Your task to perform on an android device: Open network settings Image 0: 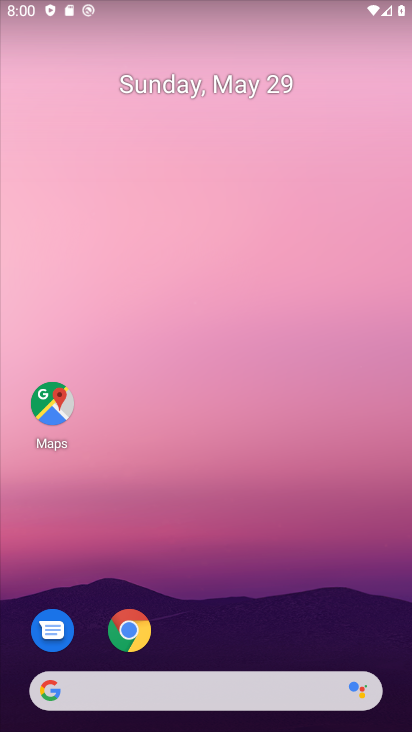
Step 0: drag from (299, 606) to (285, 41)
Your task to perform on an android device: Open network settings Image 1: 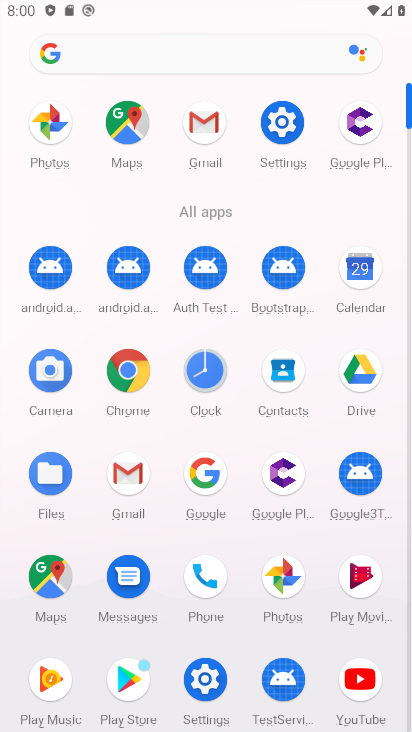
Step 1: click (288, 104)
Your task to perform on an android device: Open network settings Image 2: 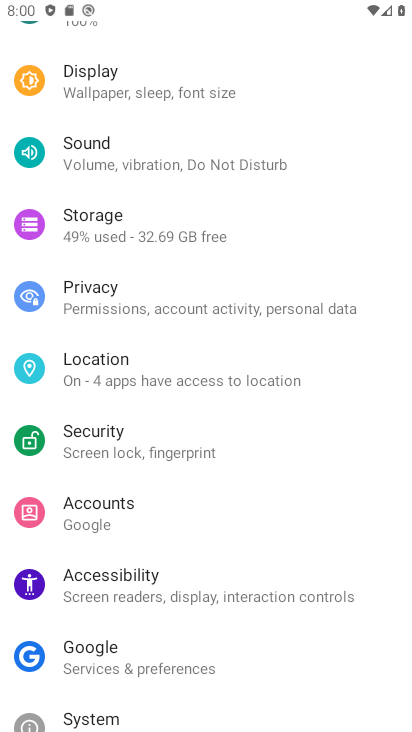
Step 2: drag from (288, 104) to (248, 373)
Your task to perform on an android device: Open network settings Image 3: 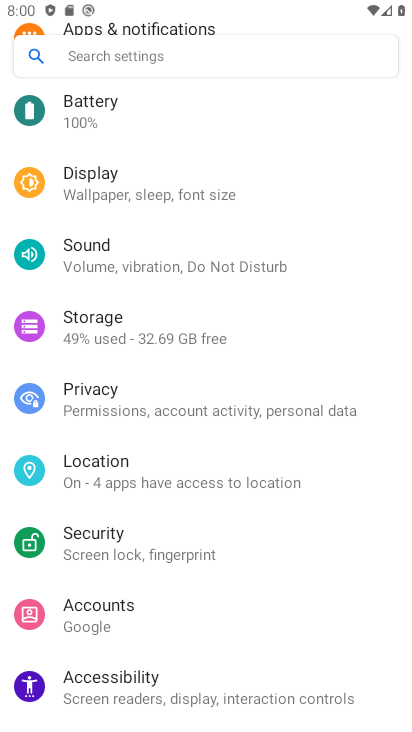
Step 3: drag from (316, 209) to (292, 559)
Your task to perform on an android device: Open network settings Image 4: 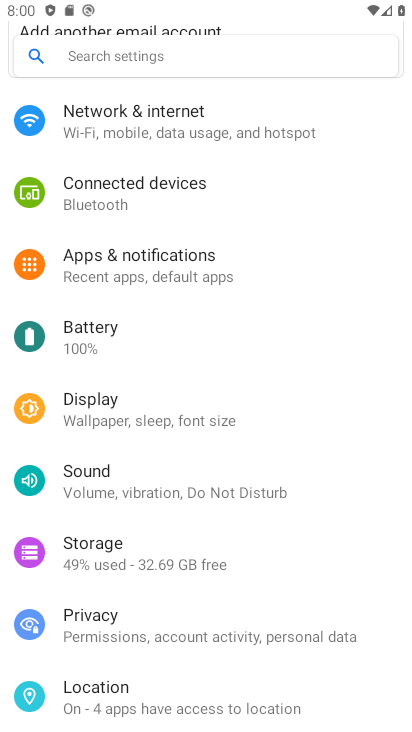
Step 4: click (224, 128)
Your task to perform on an android device: Open network settings Image 5: 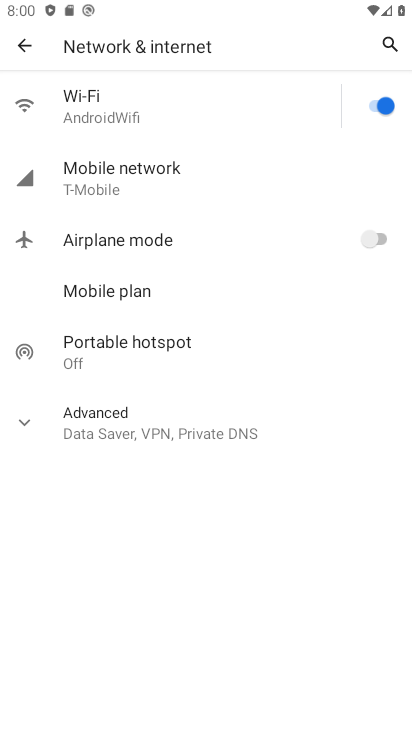
Step 5: task complete